Your task to perform on an android device: clear all cookies in the chrome app Image 0: 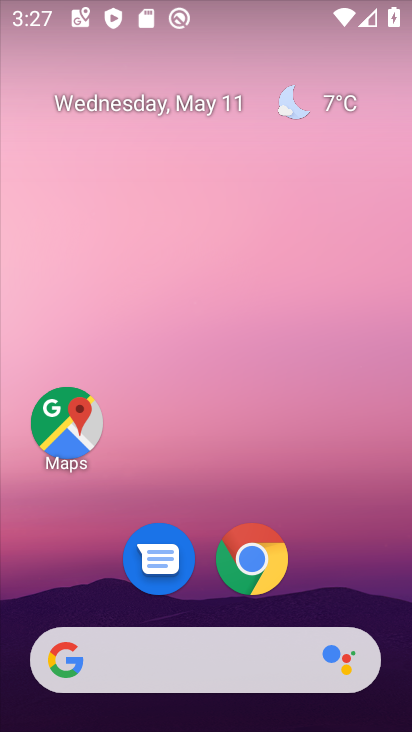
Step 0: click (253, 563)
Your task to perform on an android device: clear all cookies in the chrome app Image 1: 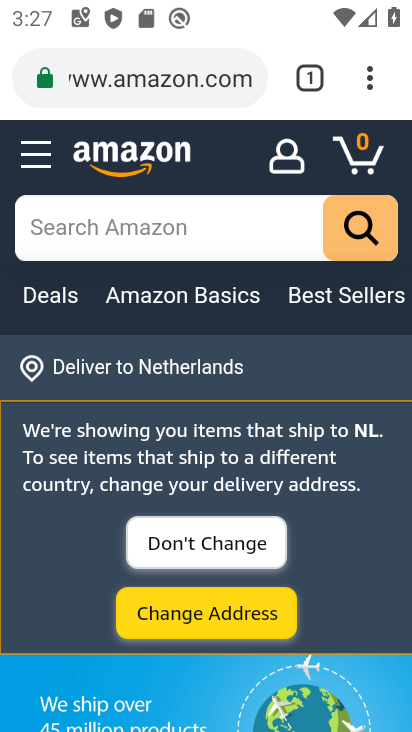
Step 1: click (374, 78)
Your task to perform on an android device: clear all cookies in the chrome app Image 2: 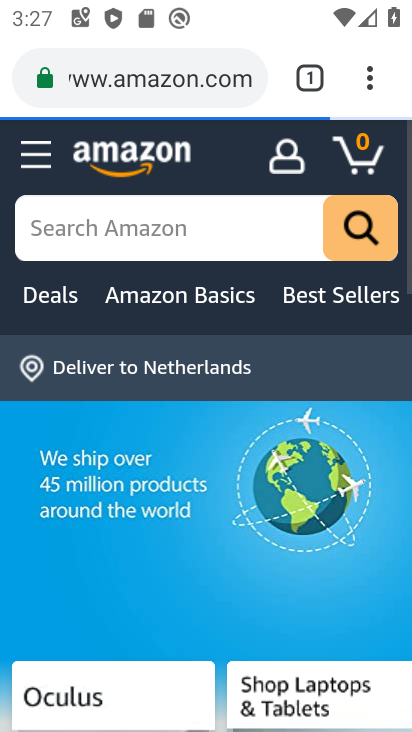
Step 2: click (373, 78)
Your task to perform on an android device: clear all cookies in the chrome app Image 3: 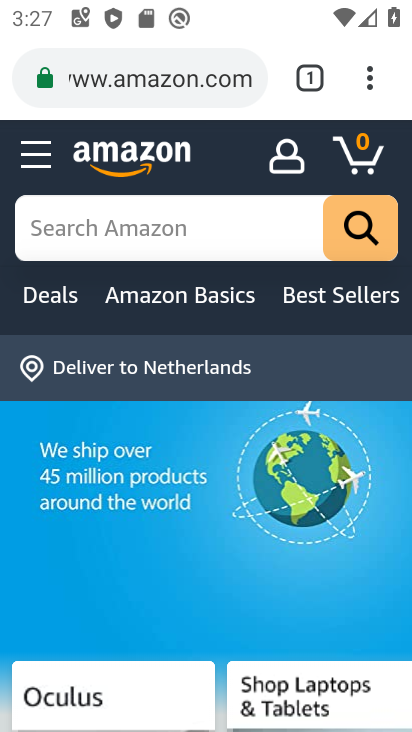
Step 3: click (370, 75)
Your task to perform on an android device: clear all cookies in the chrome app Image 4: 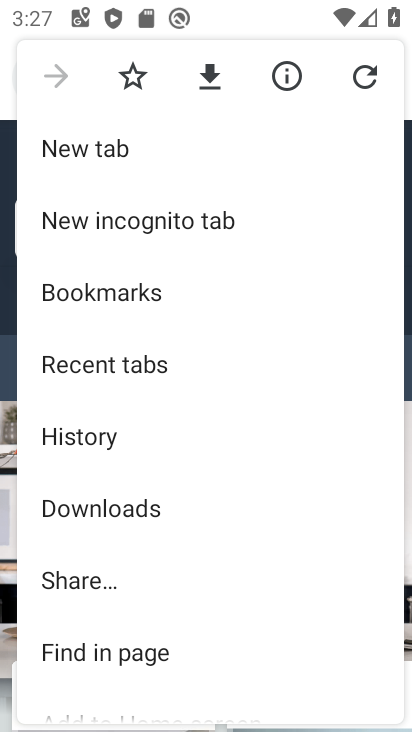
Step 4: click (82, 433)
Your task to perform on an android device: clear all cookies in the chrome app Image 5: 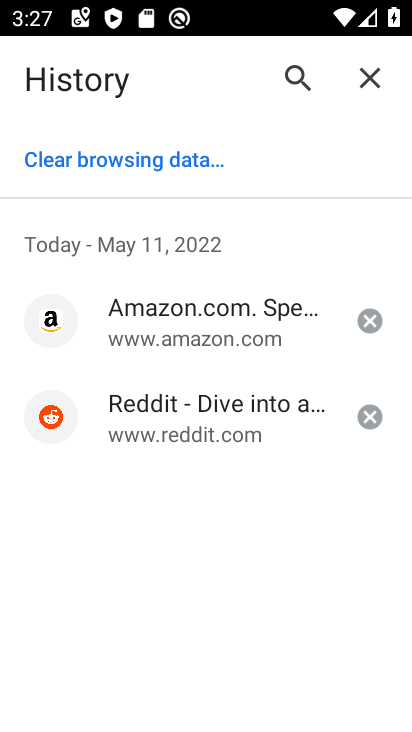
Step 5: click (122, 157)
Your task to perform on an android device: clear all cookies in the chrome app Image 6: 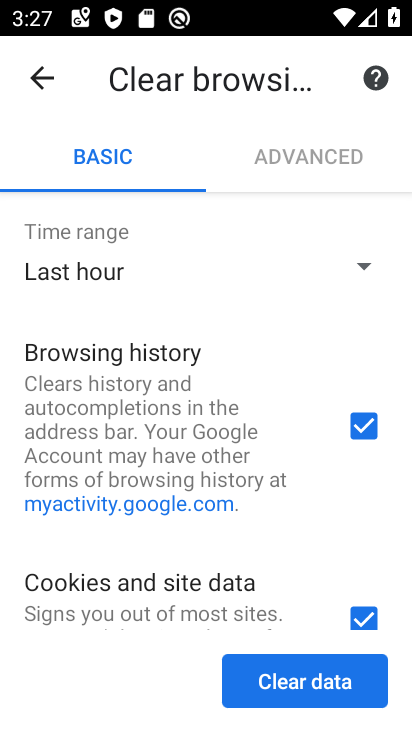
Step 6: click (359, 428)
Your task to perform on an android device: clear all cookies in the chrome app Image 7: 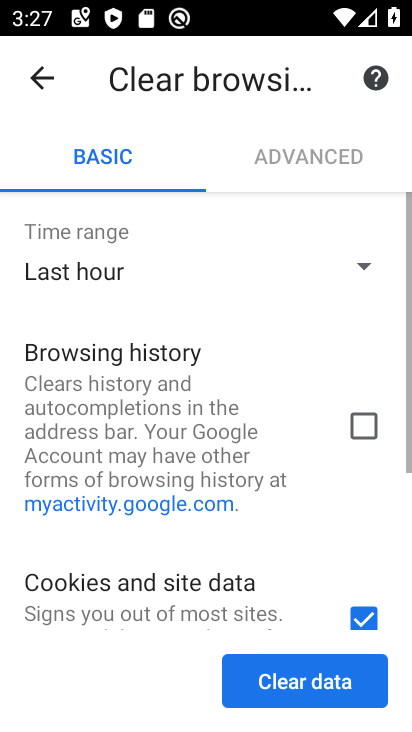
Step 7: drag from (110, 671) to (67, 376)
Your task to perform on an android device: clear all cookies in the chrome app Image 8: 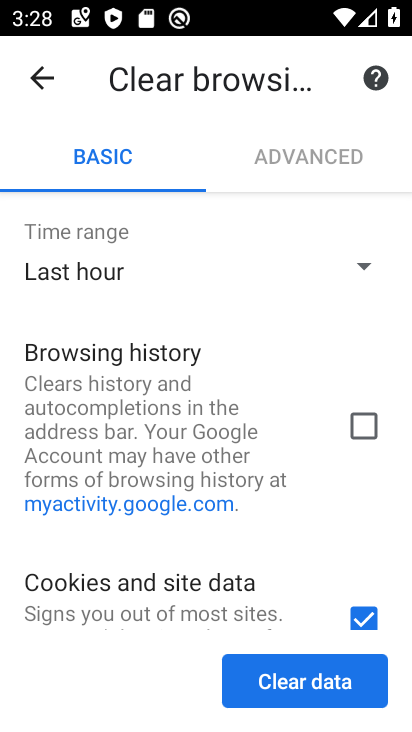
Step 8: drag from (154, 599) to (172, 245)
Your task to perform on an android device: clear all cookies in the chrome app Image 9: 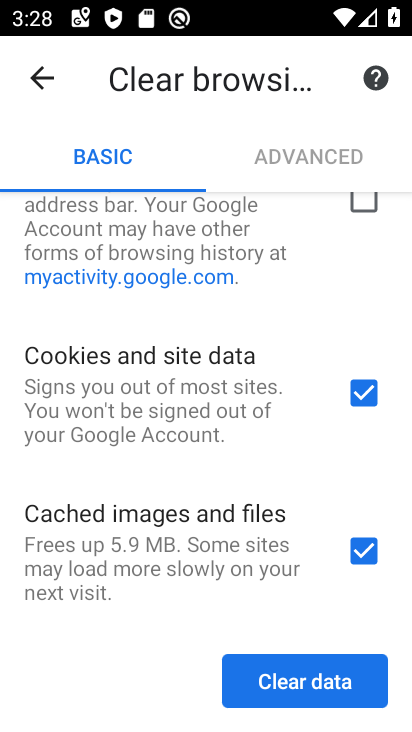
Step 9: click (356, 550)
Your task to perform on an android device: clear all cookies in the chrome app Image 10: 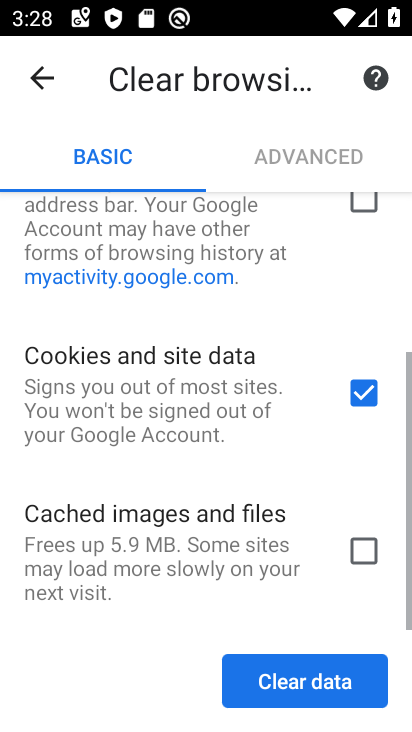
Step 10: click (272, 689)
Your task to perform on an android device: clear all cookies in the chrome app Image 11: 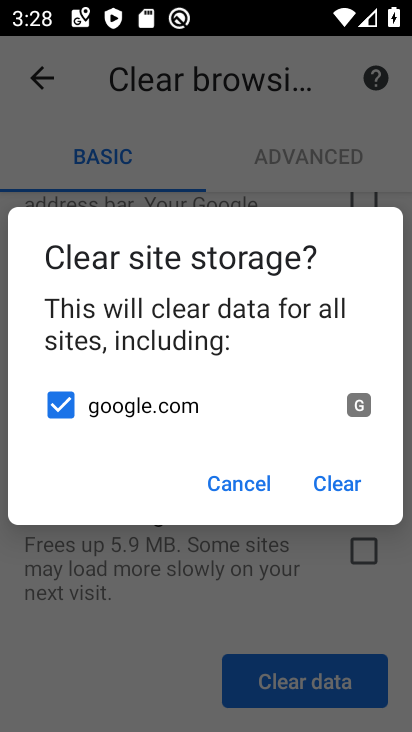
Step 11: click (341, 483)
Your task to perform on an android device: clear all cookies in the chrome app Image 12: 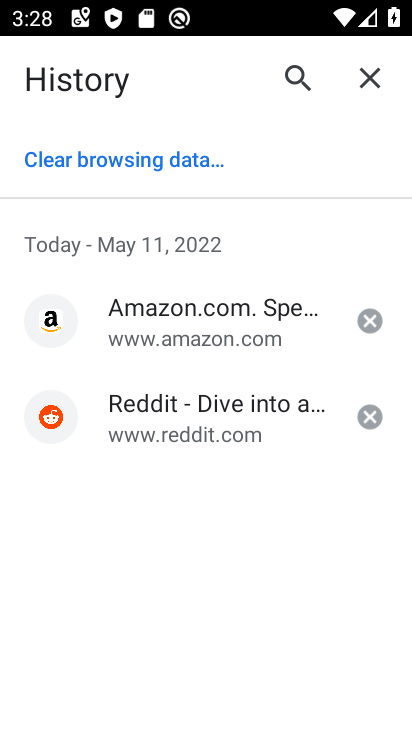
Step 12: task complete